Your task to perform on an android device: change the clock display to analog Image 0: 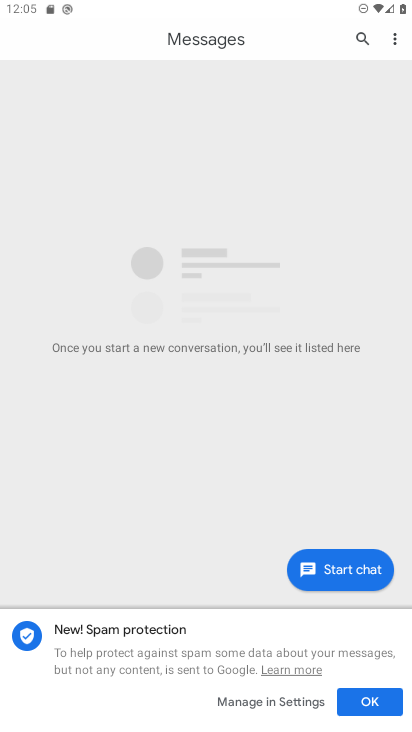
Step 0: press home button
Your task to perform on an android device: change the clock display to analog Image 1: 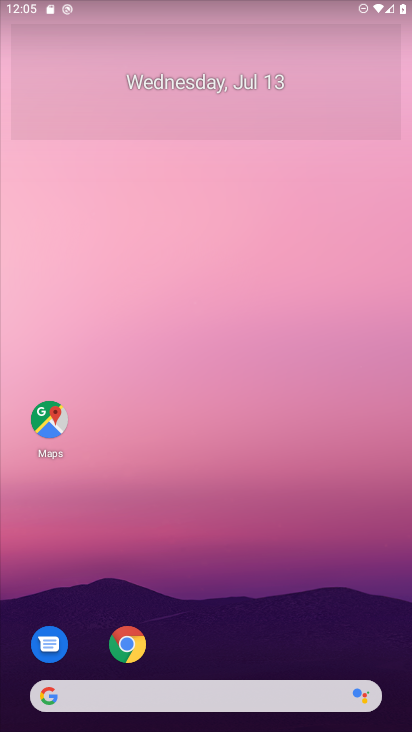
Step 1: drag from (245, 728) to (244, 49)
Your task to perform on an android device: change the clock display to analog Image 2: 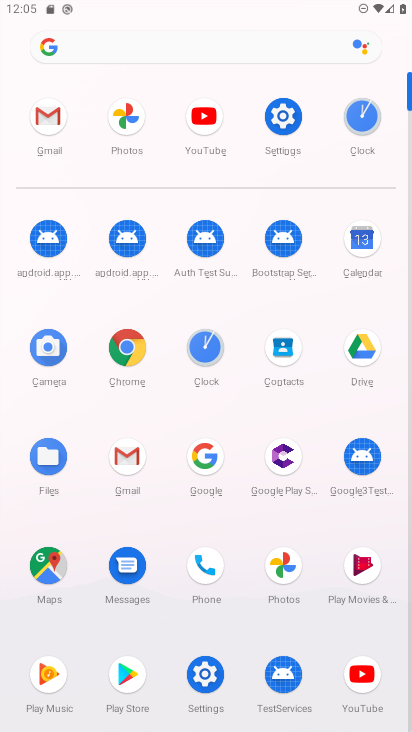
Step 2: click (360, 109)
Your task to perform on an android device: change the clock display to analog Image 3: 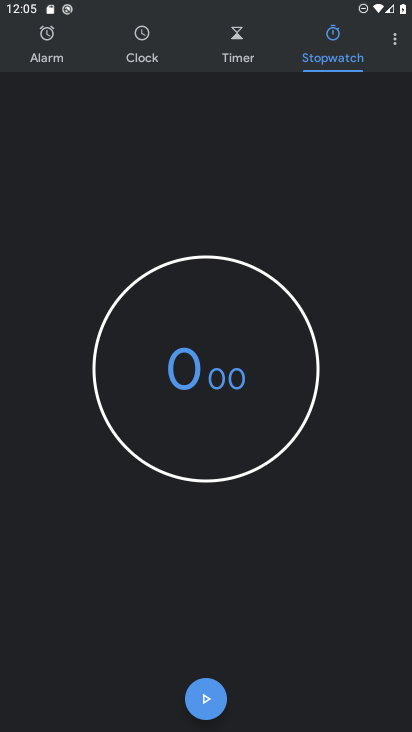
Step 3: click (400, 44)
Your task to perform on an android device: change the clock display to analog Image 4: 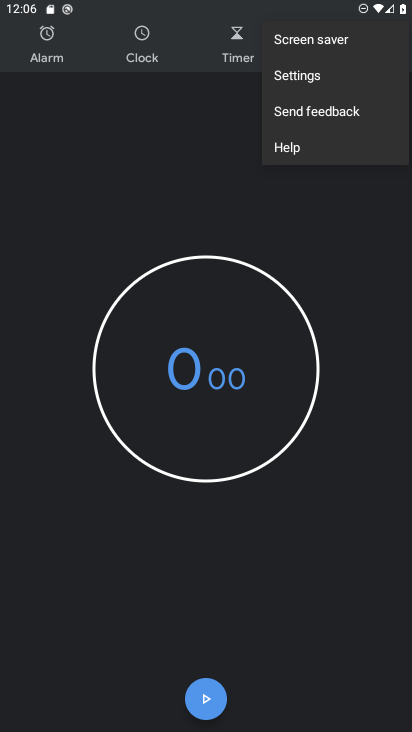
Step 4: click (339, 80)
Your task to perform on an android device: change the clock display to analog Image 5: 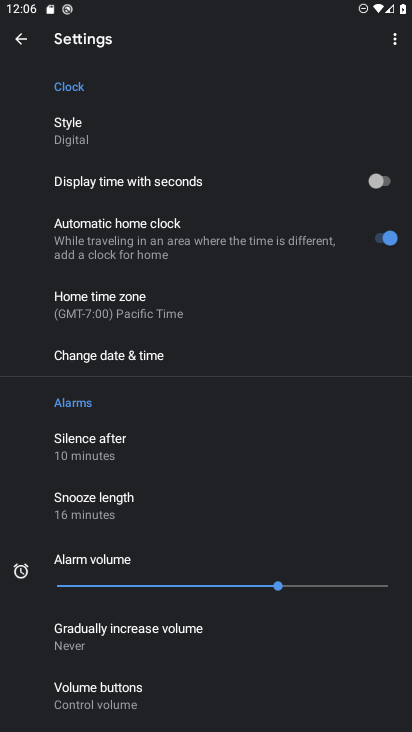
Step 5: click (88, 137)
Your task to perform on an android device: change the clock display to analog Image 6: 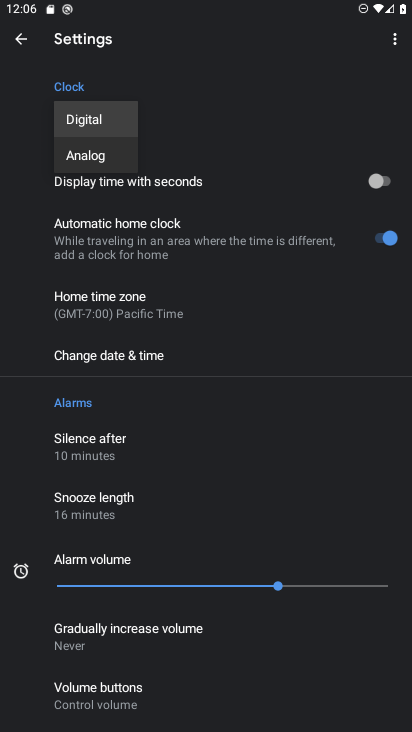
Step 6: click (107, 159)
Your task to perform on an android device: change the clock display to analog Image 7: 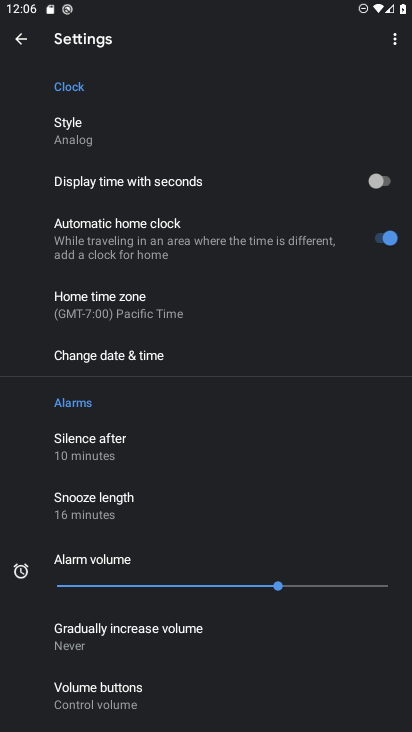
Step 7: task complete